Your task to perform on an android device: Open the calendar app, open the side menu, and click the "Day" option Image 0: 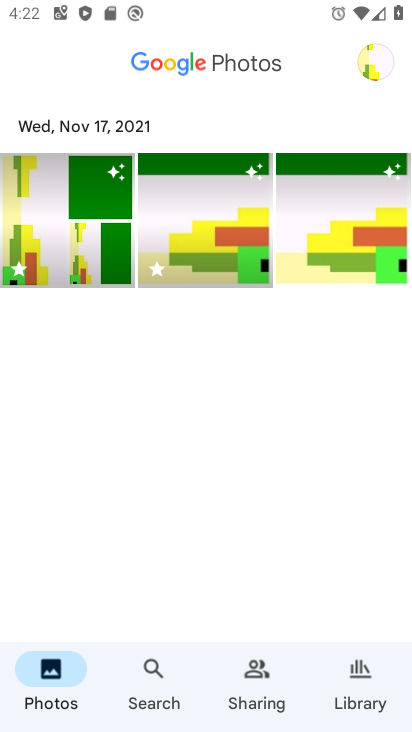
Step 0: press home button
Your task to perform on an android device: Open the calendar app, open the side menu, and click the "Day" option Image 1: 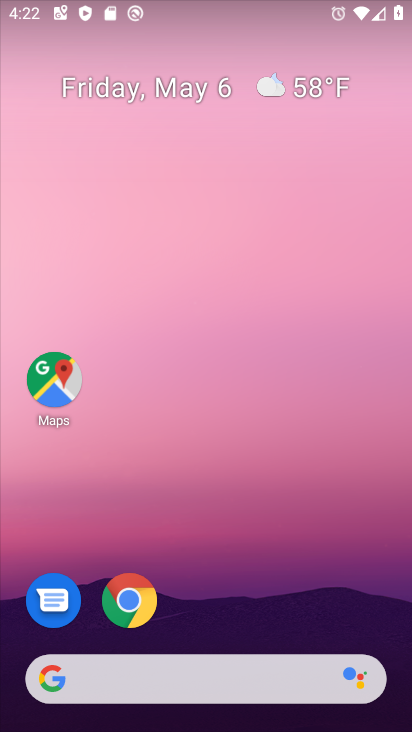
Step 1: drag from (225, 499) to (297, 41)
Your task to perform on an android device: Open the calendar app, open the side menu, and click the "Day" option Image 2: 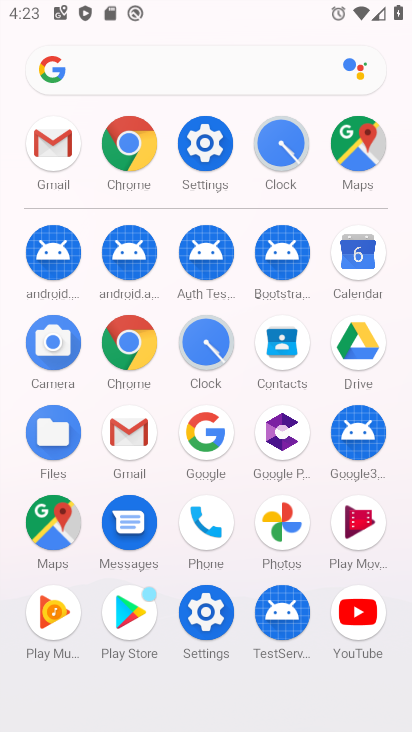
Step 2: click (362, 270)
Your task to perform on an android device: Open the calendar app, open the side menu, and click the "Day" option Image 3: 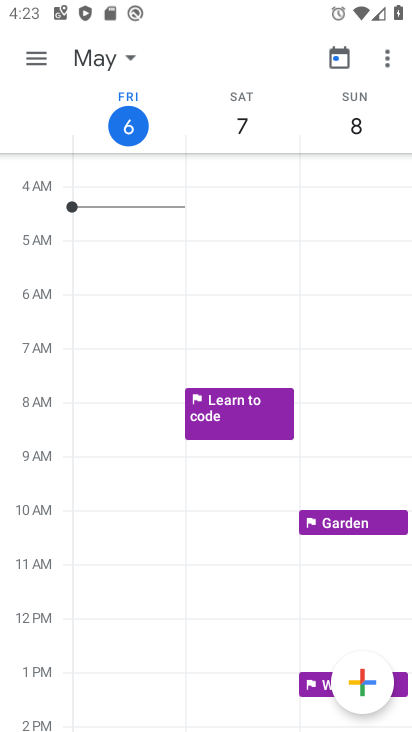
Step 3: click (26, 55)
Your task to perform on an android device: Open the calendar app, open the side menu, and click the "Day" option Image 4: 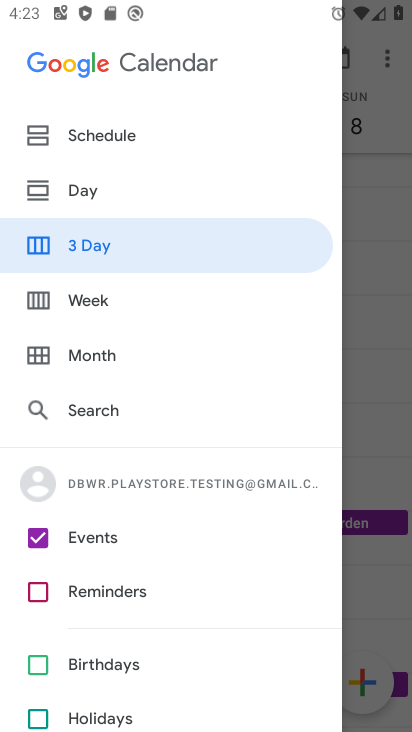
Step 4: click (93, 175)
Your task to perform on an android device: Open the calendar app, open the side menu, and click the "Day" option Image 5: 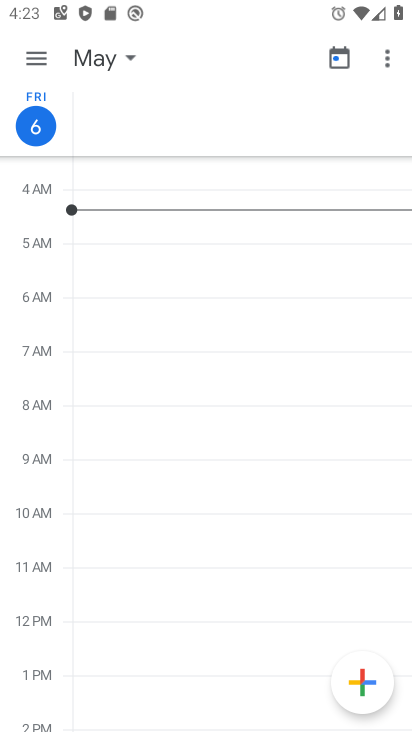
Step 5: task complete